Your task to perform on an android device: Open location settings Image 0: 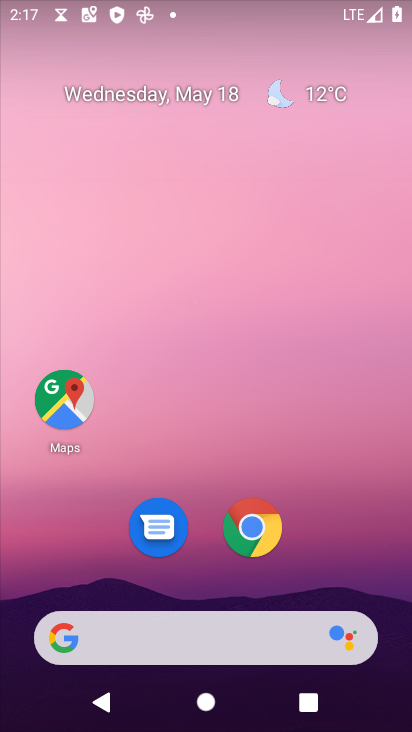
Step 0: drag from (364, 556) to (251, 38)
Your task to perform on an android device: Open location settings Image 1: 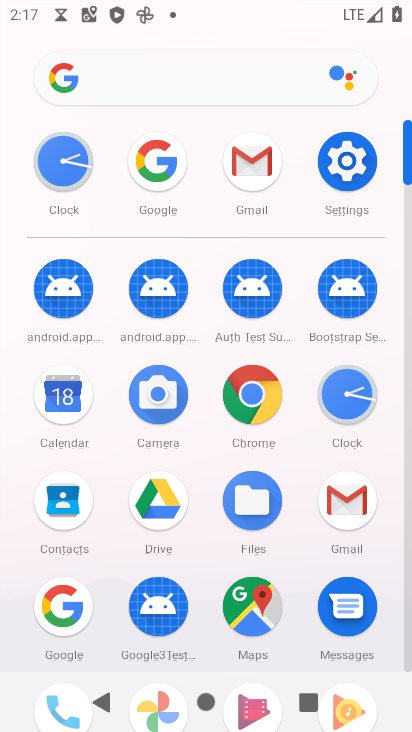
Step 1: click (349, 148)
Your task to perform on an android device: Open location settings Image 2: 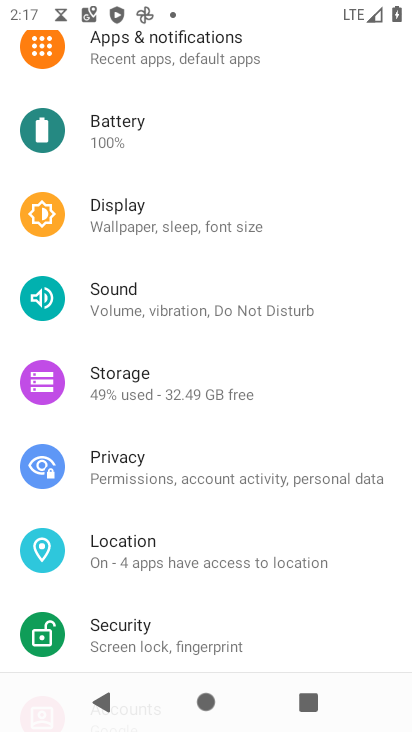
Step 2: click (252, 558)
Your task to perform on an android device: Open location settings Image 3: 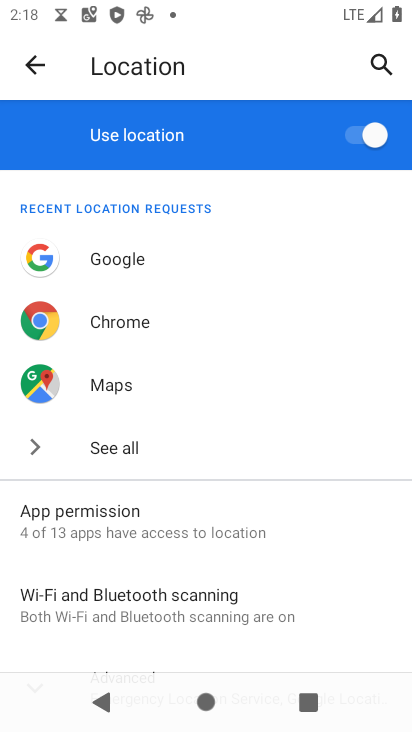
Step 3: task complete